Your task to perform on an android device: Open location settings Image 0: 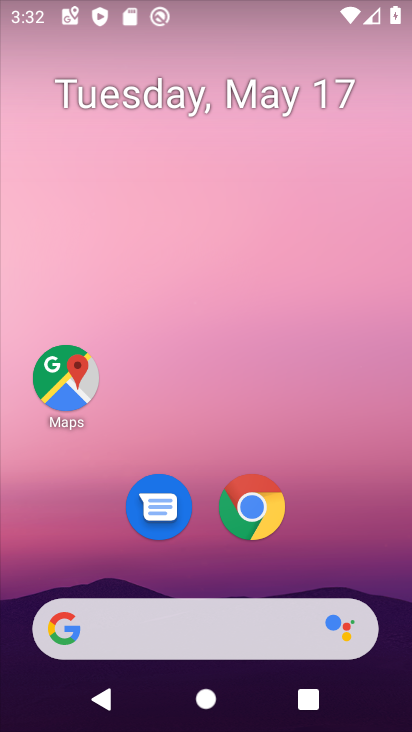
Step 0: drag from (388, 562) to (358, 144)
Your task to perform on an android device: Open location settings Image 1: 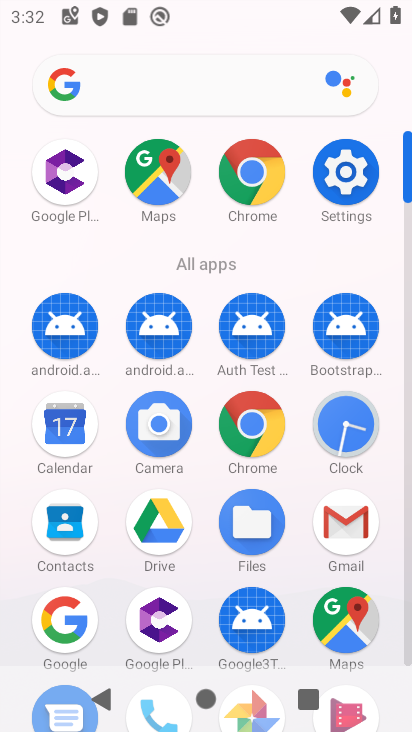
Step 1: click (353, 173)
Your task to perform on an android device: Open location settings Image 2: 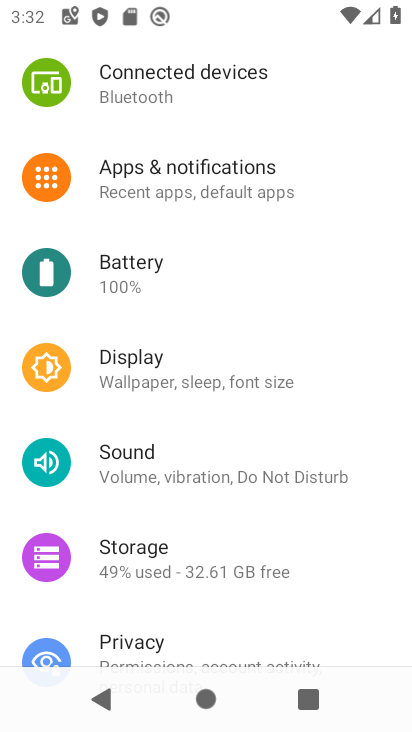
Step 2: drag from (115, 161) to (256, 587)
Your task to perform on an android device: Open location settings Image 3: 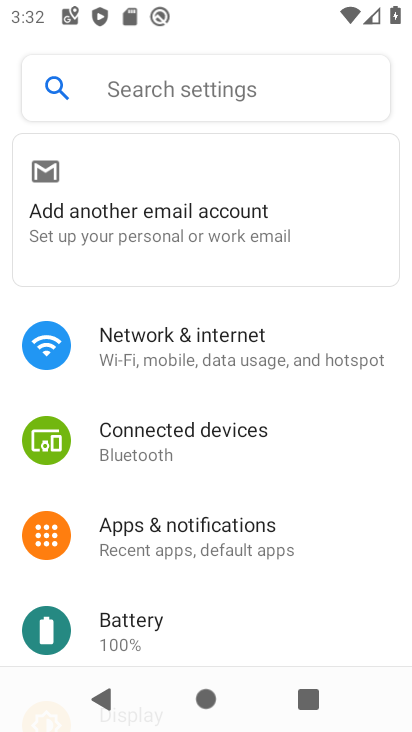
Step 3: drag from (227, 529) to (231, 81)
Your task to perform on an android device: Open location settings Image 4: 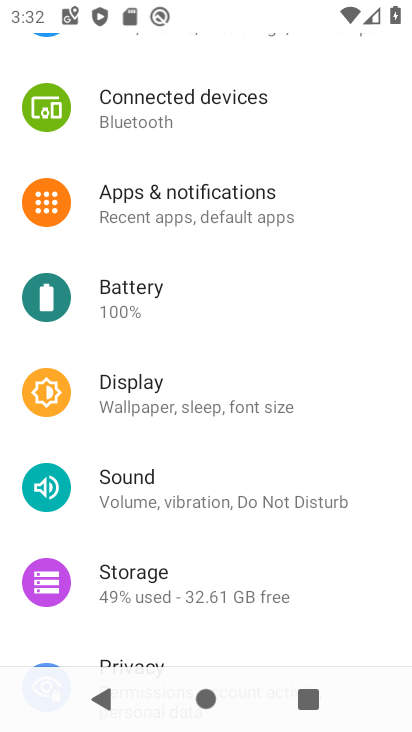
Step 4: drag from (242, 548) to (271, 128)
Your task to perform on an android device: Open location settings Image 5: 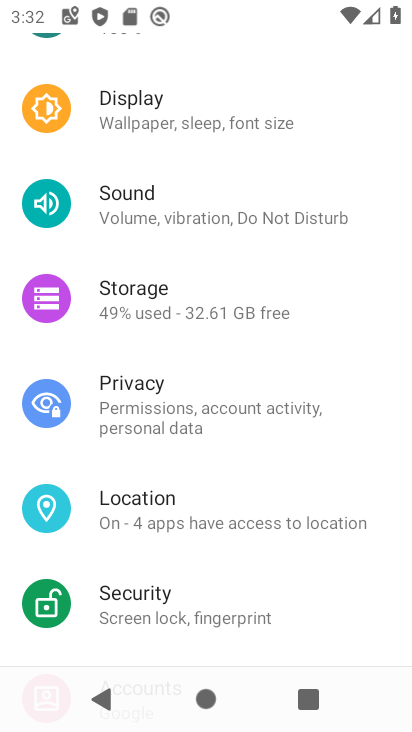
Step 5: click (211, 522)
Your task to perform on an android device: Open location settings Image 6: 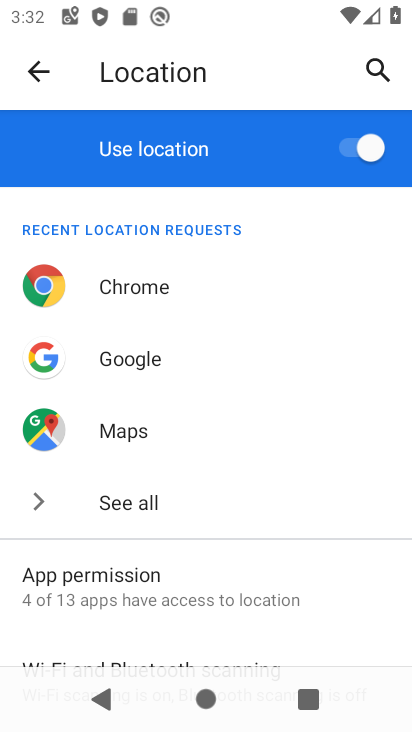
Step 6: task complete